Your task to perform on an android device: change notifications settings Image 0: 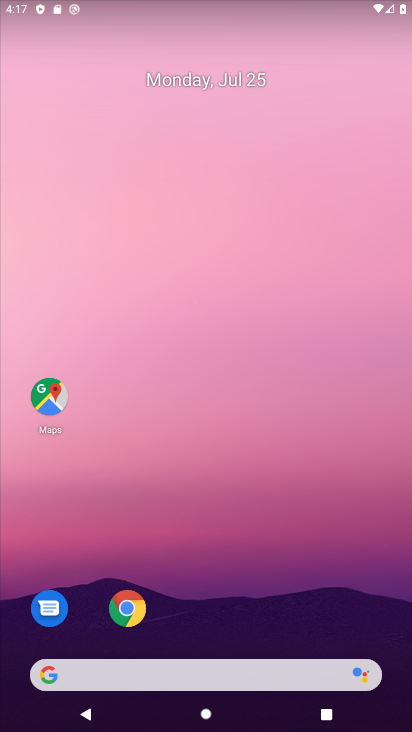
Step 0: drag from (213, 639) to (254, 0)
Your task to perform on an android device: change notifications settings Image 1: 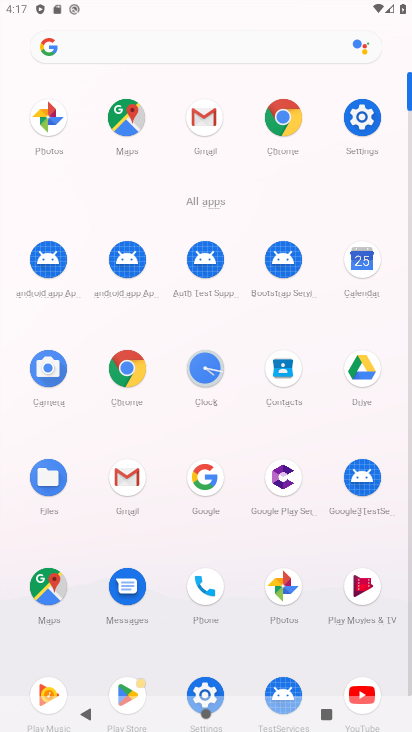
Step 1: drag from (231, 665) to (228, 430)
Your task to perform on an android device: change notifications settings Image 2: 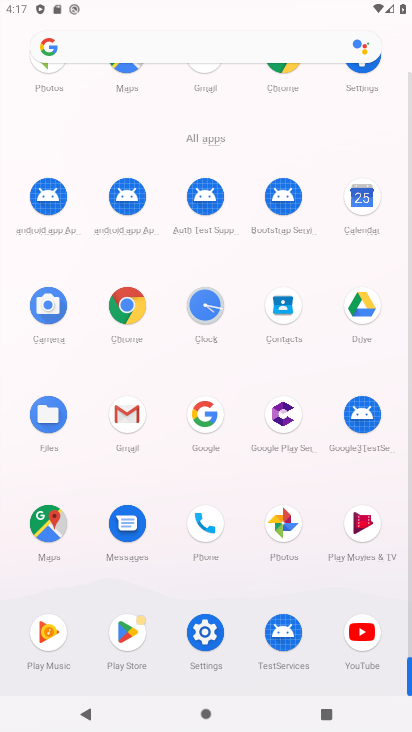
Step 2: click (205, 645)
Your task to perform on an android device: change notifications settings Image 3: 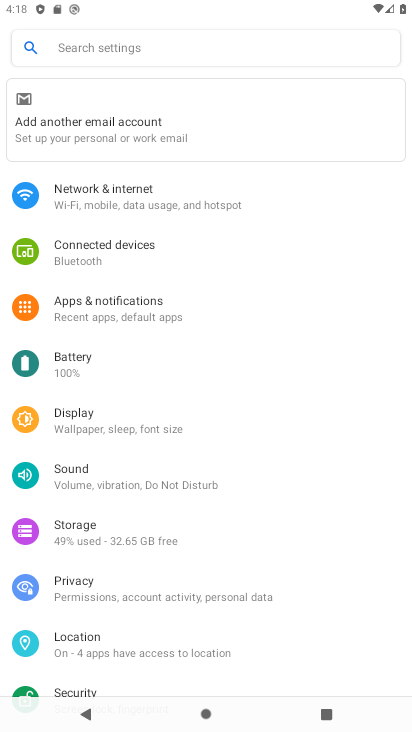
Step 3: click (128, 309)
Your task to perform on an android device: change notifications settings Image 4: 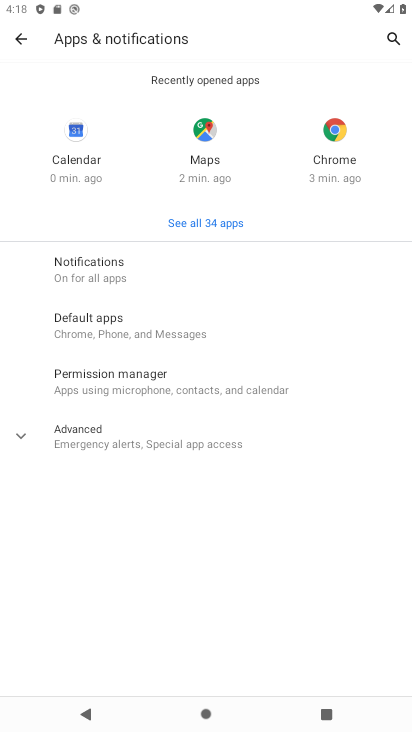
Step 4: click (105, 275)
Your task to perform on an android device: change notifications settings Image 5: 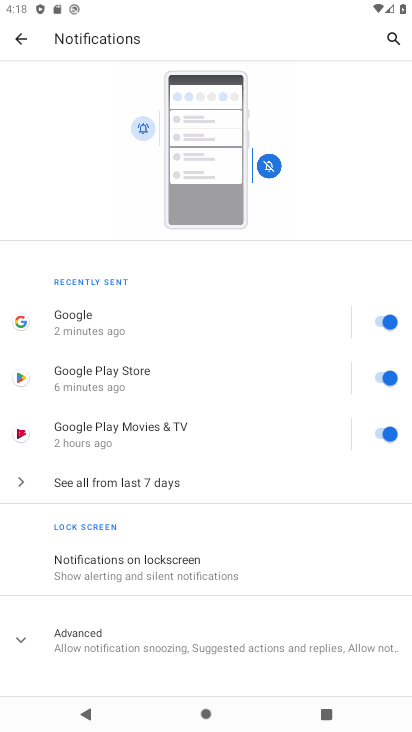
Step 5: click (150, 484)
Your task to perform on an android device: change notifications settings Image 6: 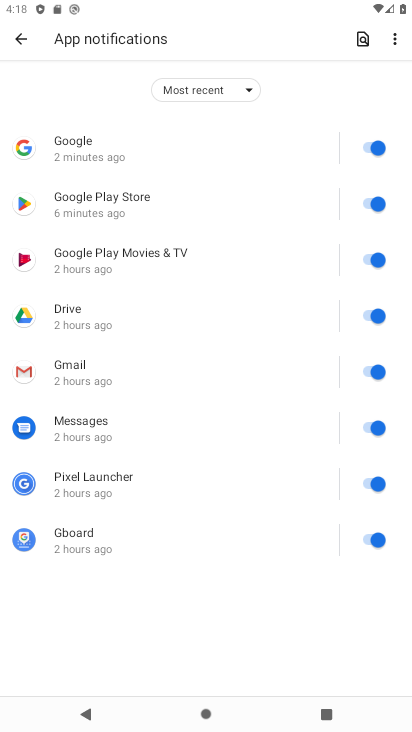
Step 6: click (357, 141)
Your task to perform on an android device: change notifications settings Image 7: 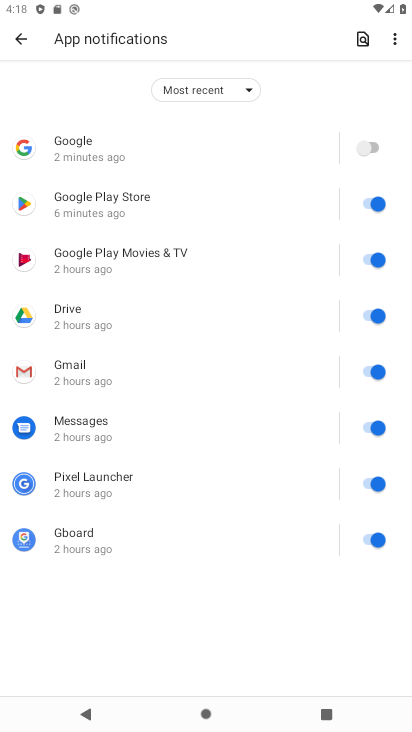
Step 7: click (359, 202)
Your task to perform on an android device: change notifications settings Image 8: 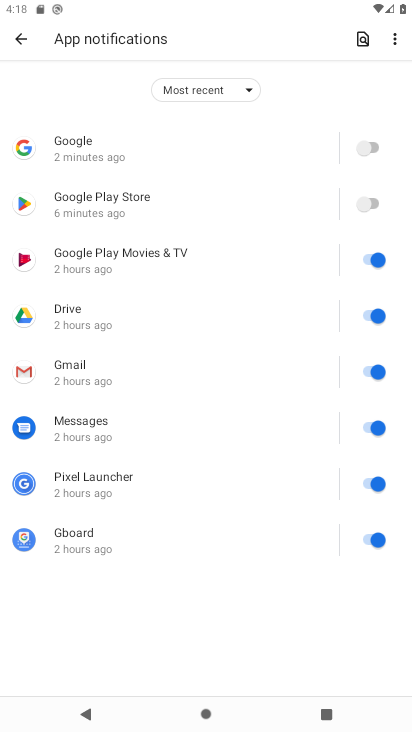
Step 8: click (358, 262)
Your task to perform on an android device: change notifications settings Image 9: 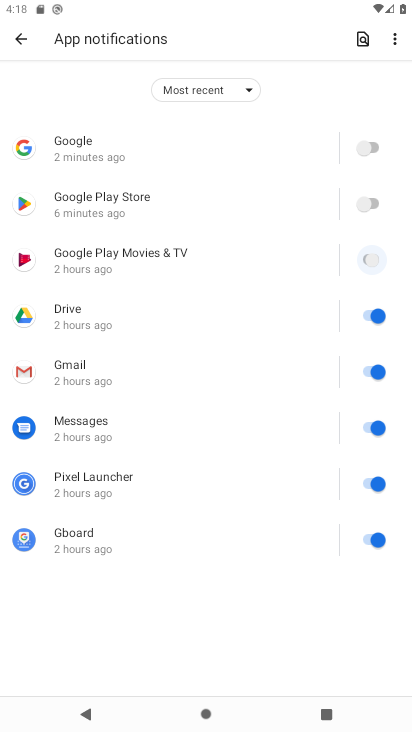
Step 9: click (363, 311)
Your task to perform on an android device: change notifications settings Image 10: 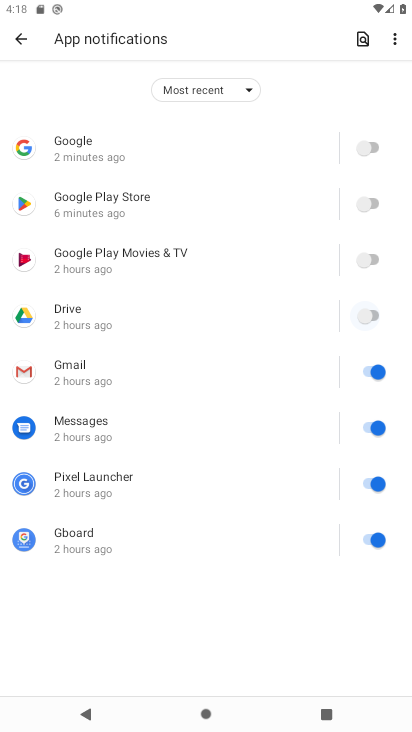
Step 10: click (359, 364)
Your task to perform on an android device: change notifications settings Image 11: 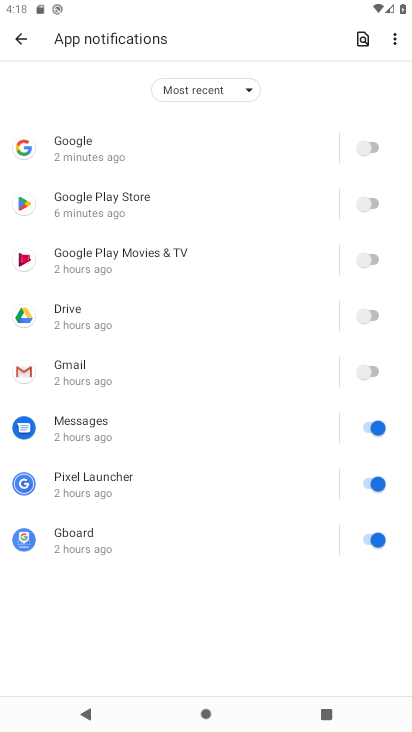
Step 11: click (363, 430)
Your task to perform on an android device: change notifications settings Image 12: 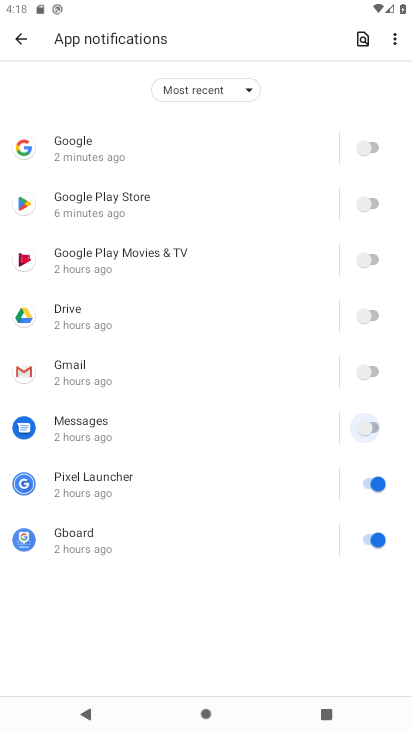
Step 12: click (364, 490)
Your task to perform on an android device: change notifications settings Image 13: 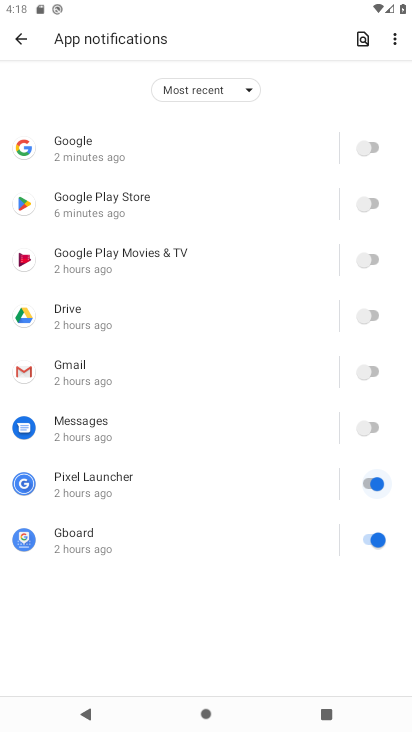
Step 13: click (365, 554)
Your task to perform on an android device: change notifications settings Image 14: 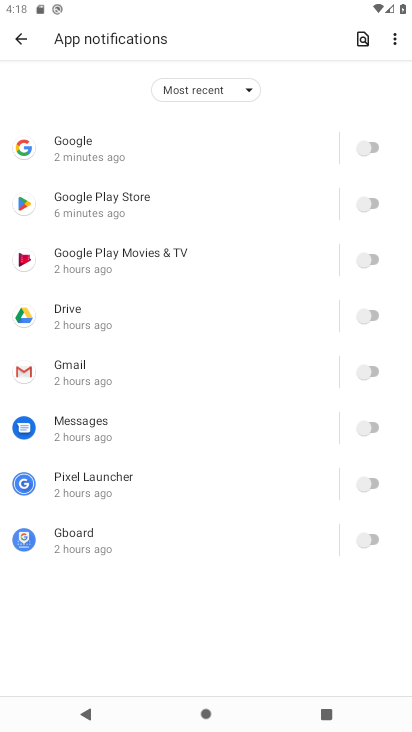
Step 14: task complete